Your task to perform on an android device: Go to notification settings Image 0: 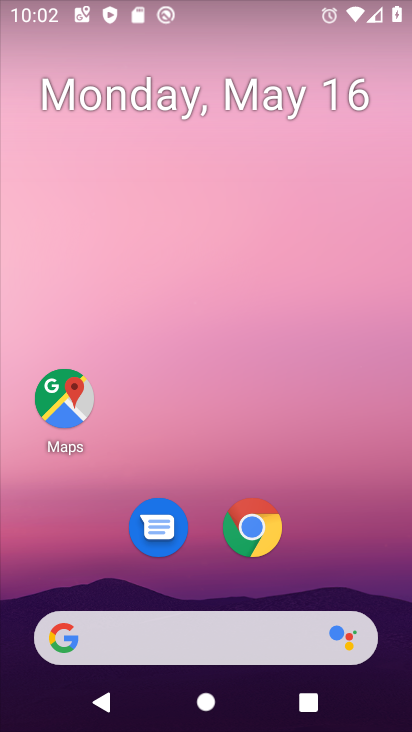
Step 0: drag from (343, 596) to (344, 0)
Your task to perform on an android device: Go to notification settings Image 1: 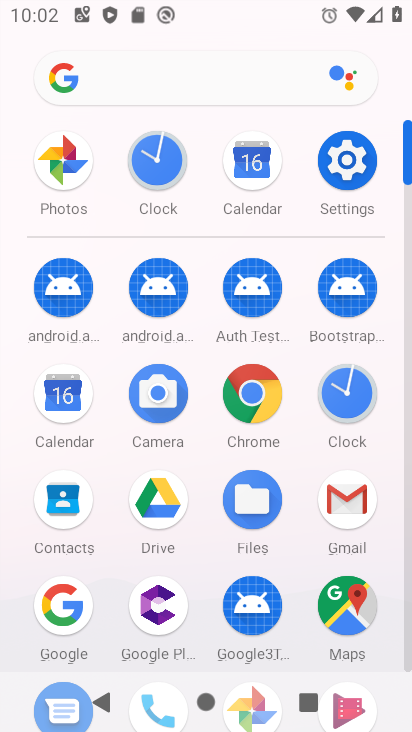
Step 1: click (342, 166)
Your task to perform on an android device: Go to notification settings Image 2: 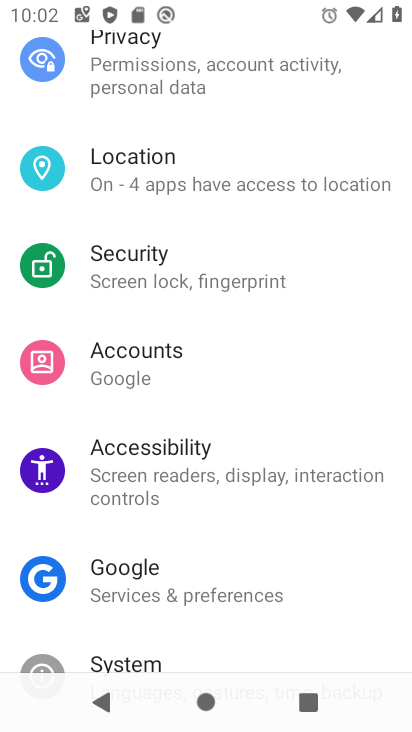
Step 2: drag from (342, 166) to (313, 579)
Your task to perform on an android device: Go to notification settings Image 3: 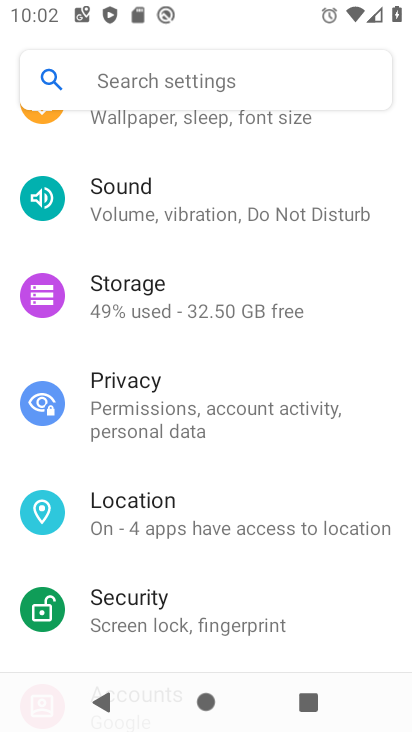
Step 3: drag from (305, 289) to (279, 612)
Your task to perform on an android device: Go to notification settings Image 4: 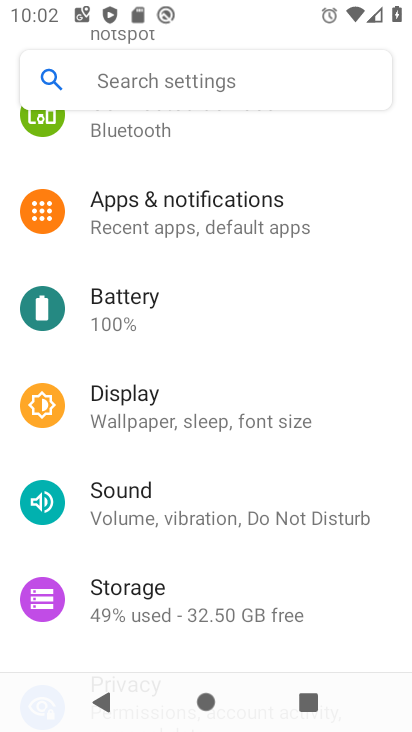
Step 4: click (169, 219)
Your task to perform on an android device: Go to notification settings Image 5: 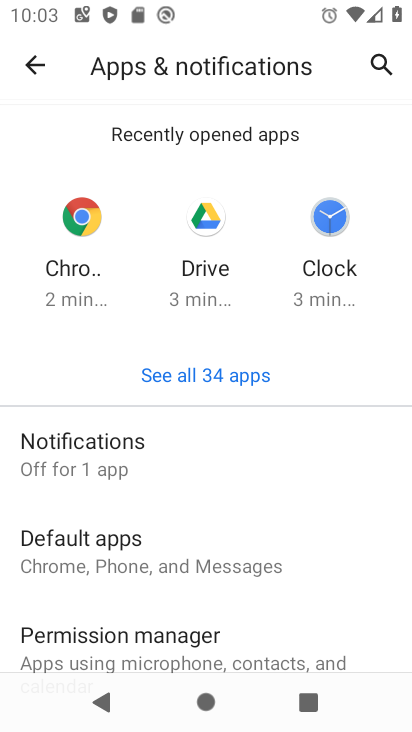
Step 5: task complete